Your task to perform on an android device: open app "Spotify: Music and Podcasts" (install if not already installed) Image 0: 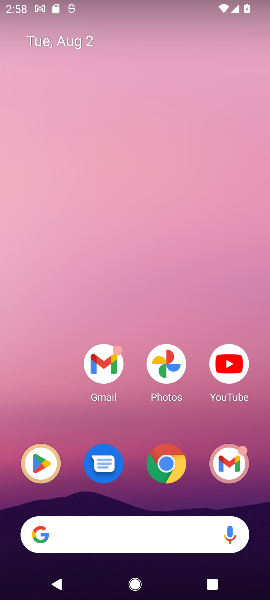
Step 0: click (33, 456)
Your task to perform on an android device: open app "Spotify: Music and Podcasts" (install if not already installed) Image 1: 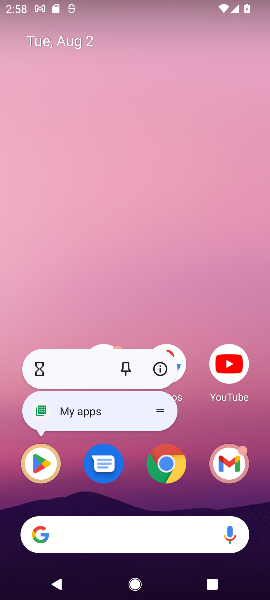
Step 1: click (36, 466)
Your task to perform on an android device: open app "Spotify: Music and Podcasts" (install if not already installed) Image 2: 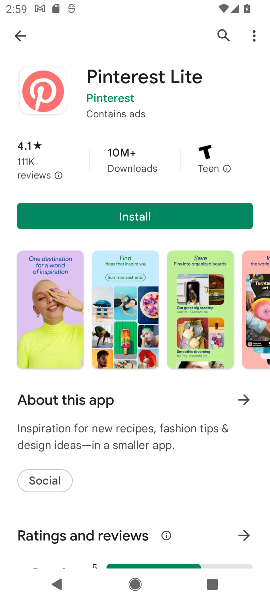
Step 2: click (221, 28)
Your task to perform on an android device: open app "Spotify: Music and Podcasts" (install if not already installed) Image 3: 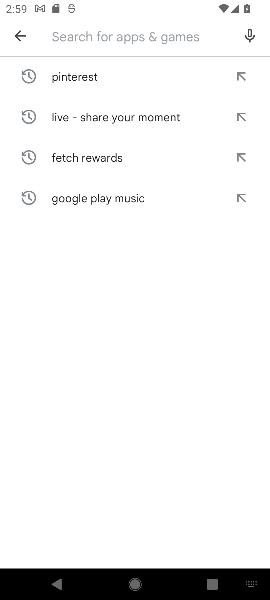
Step 3: type "Spotify: Music and Podcasts"
Your task to perform on an android device: open app "Spotify: Music and Podcasts" (install if not already installed) Image 4: 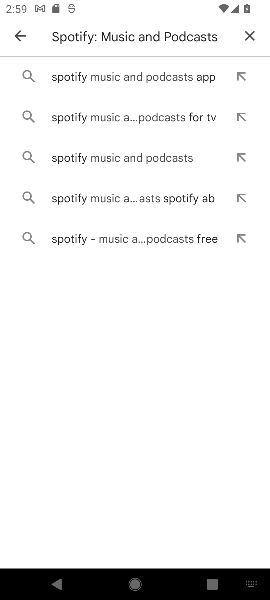
Step 4: click (107, 71)
Your task to perform on an android device: open app "Spotify: Music and Podcasts" (install if not already installed) Image 5: 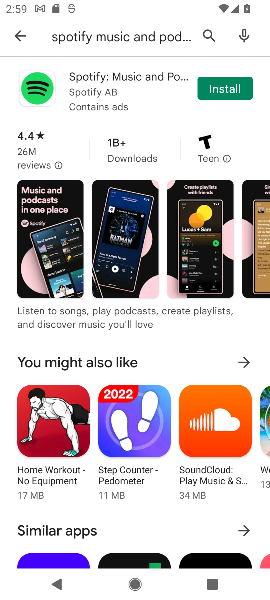
Step 5: click (232, 89)
Your task to perform on an android device: open app "Spotify: Music and Podcasts" (install if not already installed) Image 6: 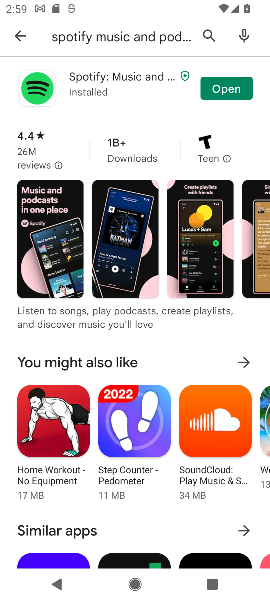
Step 6: click (228, 86)
Your task to perform on an android device: open app "Spotify: Music and Podcasts" (install if not already installed) Image 7: 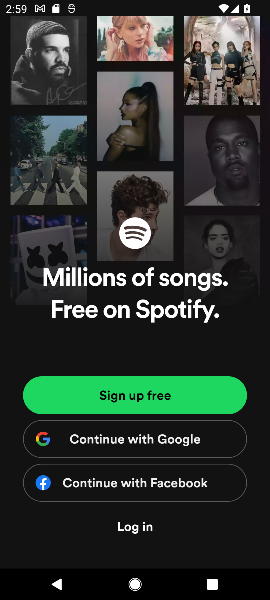
Step 7: task complete